Your task to perform on an android device: open sync settings in chrome Image 0: 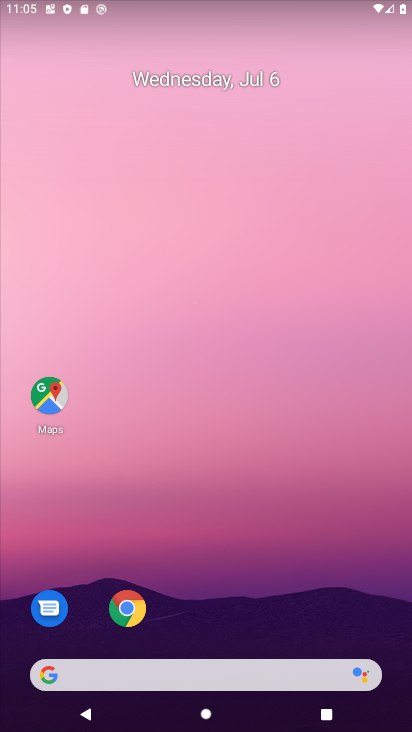
Step 0: click (132, 617)
Your task to perform on an android device: open sync settings in chrome Image 1: 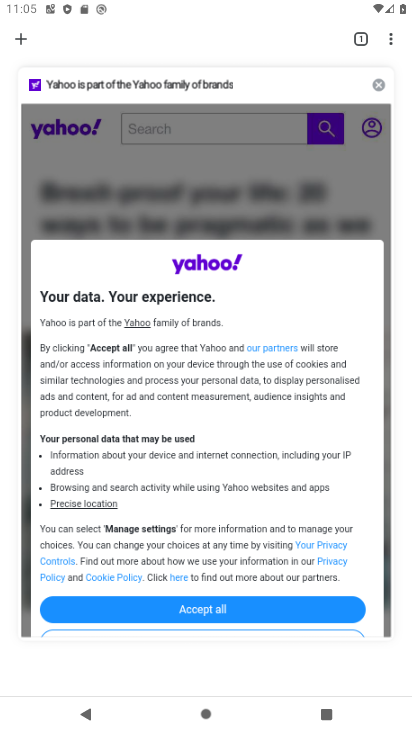
Step 1: click (384, 32)
Your task to perform on an android device: open sync settings in chrome Image 2: 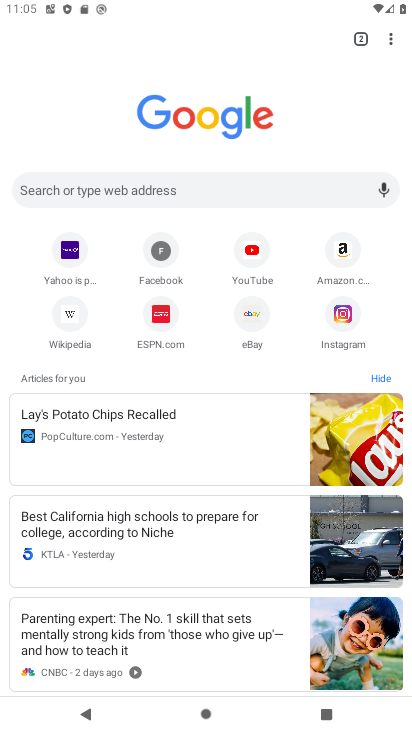
Step 2: click (395, 43)
Your task to perform on an android device: open sync settings in chrome Image 3: 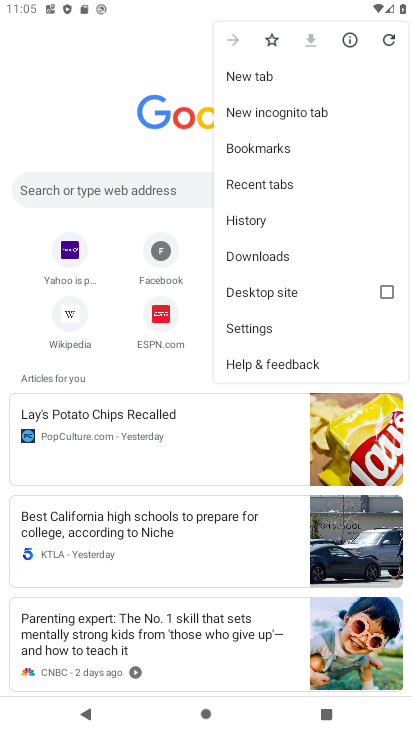
Step 3: click (244, 328)
Your task to perform on an android device: open sync settings in chrome Image 4: 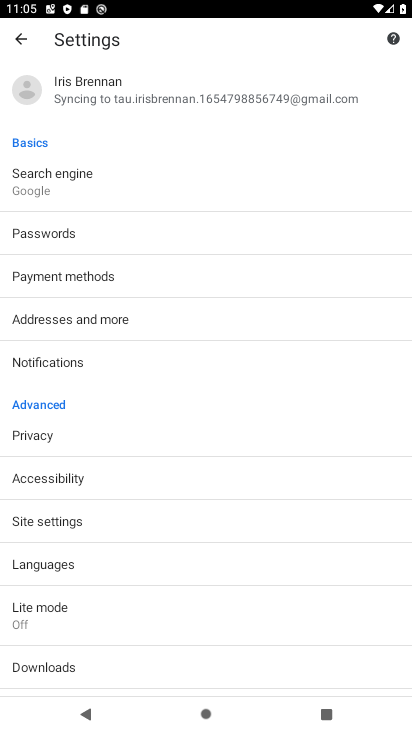
Step 4: click (118, 91)
Your task to perform on an android device: open sync settings in chrome Image 5: 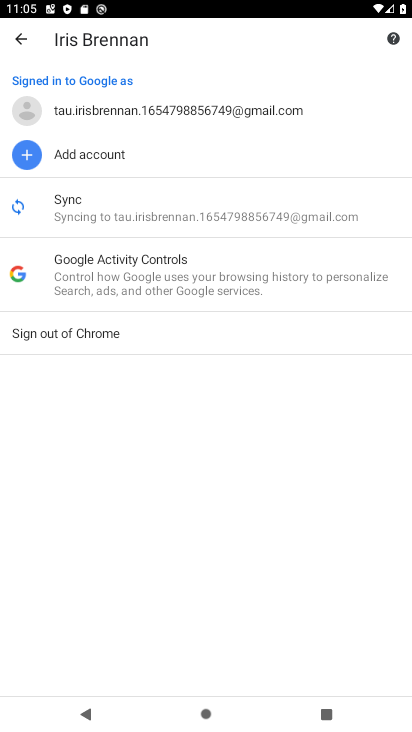
Step 5: click (64, 218)
Your task to perform on an android device: open sync settings in chrome Image 6: 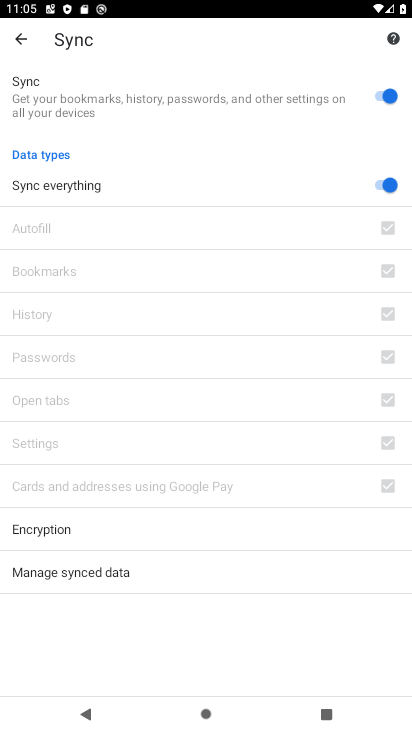
Step 6: task complete